Your task to perform on an android device: read, delete, or share a saved page in the chrome app Image 0: 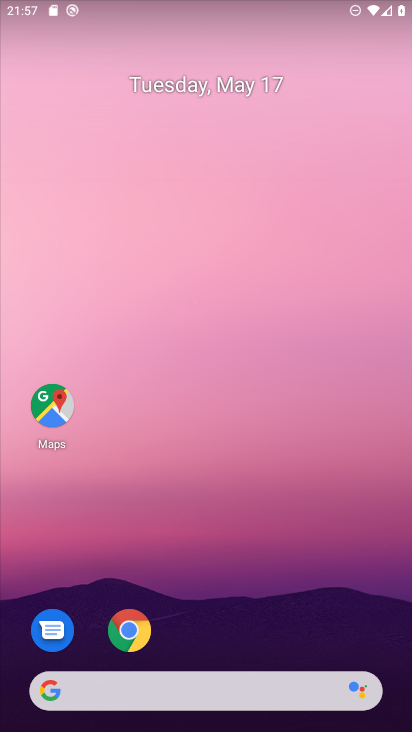
Step 0: drag from (339, 613) to (362, 257)
Your task to perform on an android device: read, delete, or share a saved page in the chrome app Image 1: 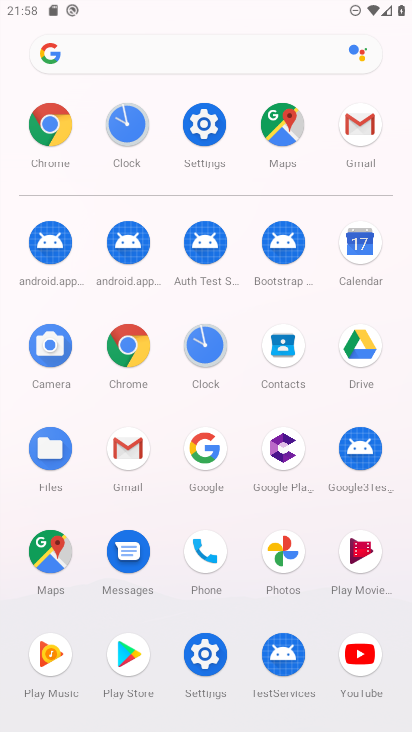
Step 1: click (136, 356)
Your task to perform on an android device: read, delete, or share a saved page in the chrome app Image 2: 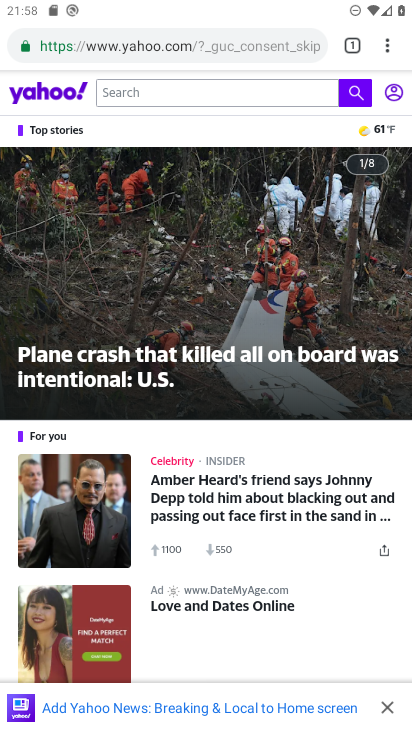
Step 2: click (389, 48)
Your task to perform on an android device: read, delete, or share a saved page in the chrome app Image 3: 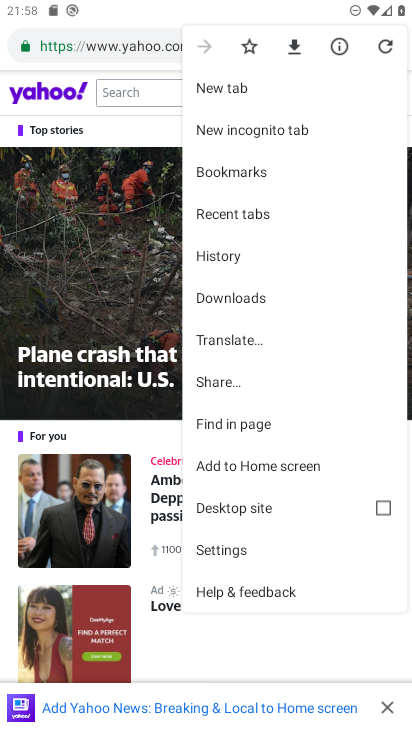
Step 3: click (258, 308)
Your task to perform on an android device: read, delete, or share a saved page in the chrome app Image 4: 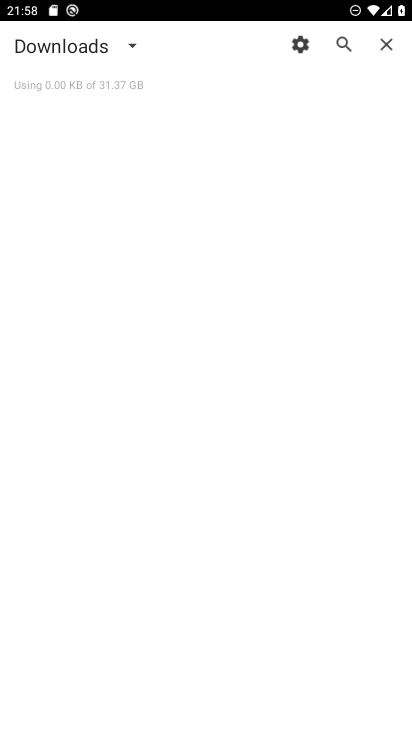
Step 4: click (124, 51)
Your task to perform on an android device: read, delete, or share a saved page in the chrome app Image 5: 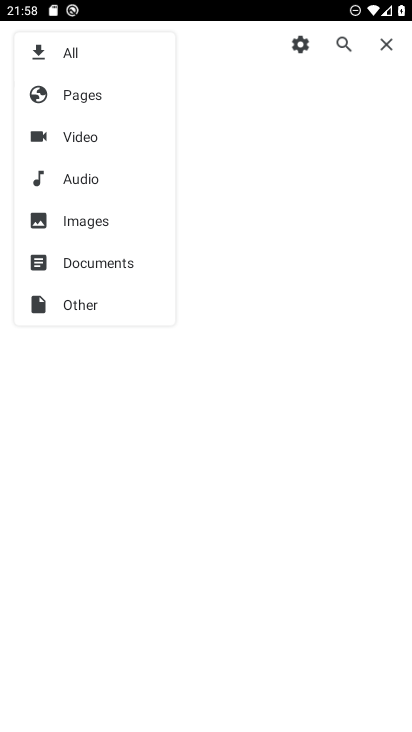
Step 5: click (97, 96)
Your task to perform on an android device: read, delete, or share a saved page in the chrome app Image 6: 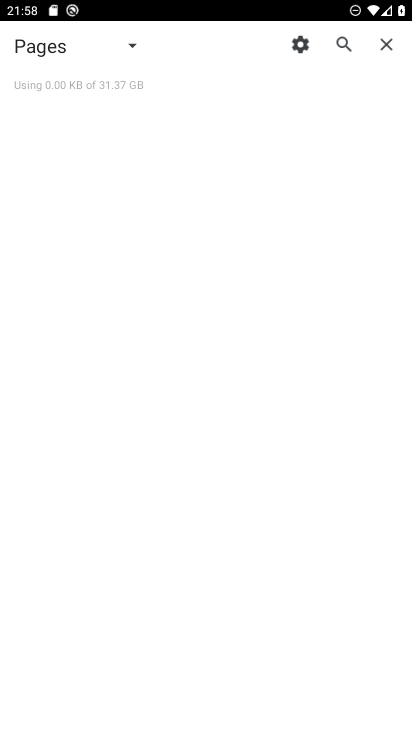
Step 6: task complete